Your task to perform on an android device: Search for Italian restaurants on Maps Image 0: 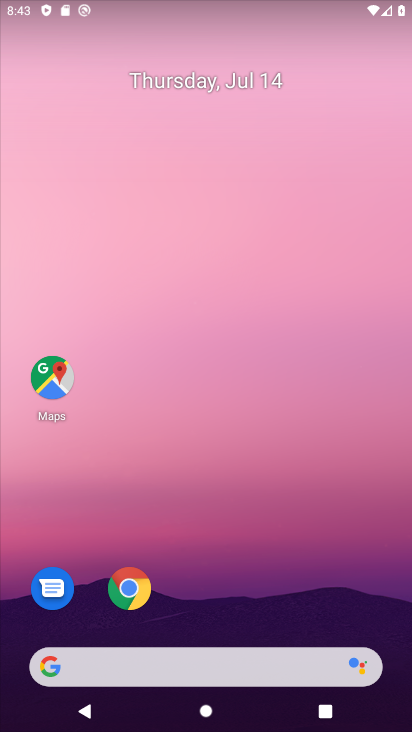
Step 0: drag from (233, 602) to (254, 176)
Your task to perform on an android device: Search for Italian restaurants on Maps Image 1: 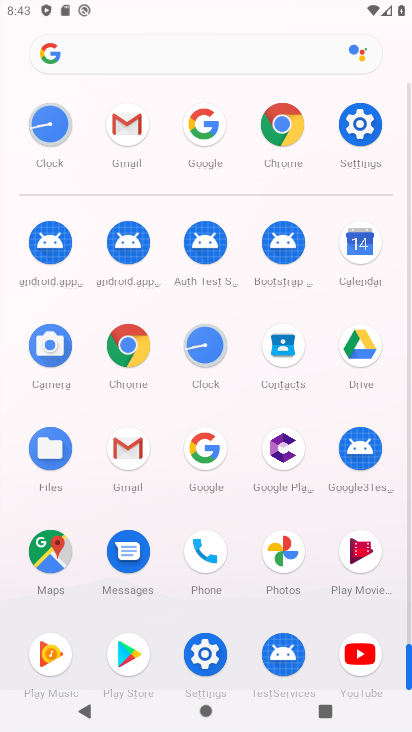
Step 1: click (51, 551)
Your task to perform on an android device: Search for Italian restaurants on Maps Image 2: 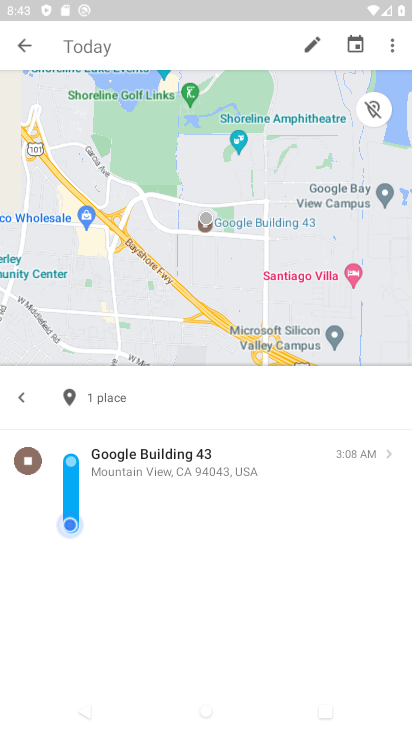
Step 2: press back button
Your task to perform on an android device: Search for Italian restaurants on Maps Image 3: 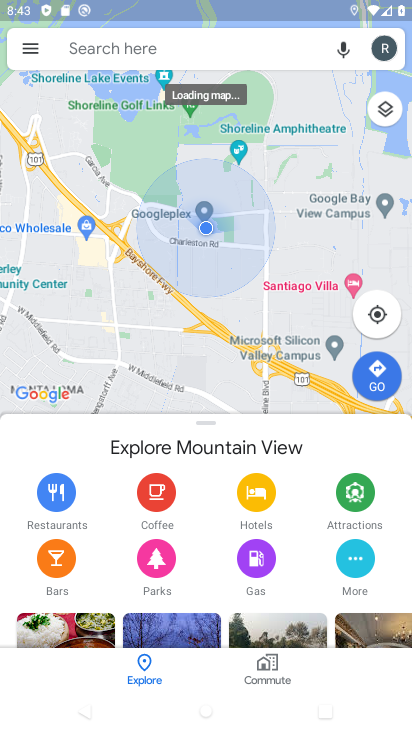
Step 3: click (156, 46)
Your task to perform on an android device: Search for Italian restaurants on Maps Image 4: 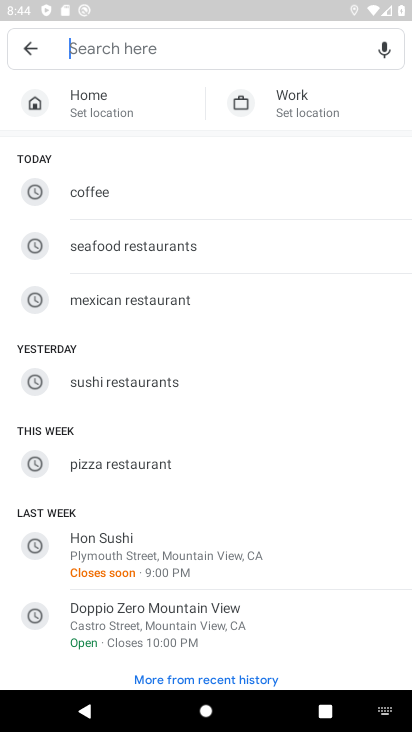
Step 4: type "italian restaurent"
Your task to perform on an android device: Search for Italian restaurants on Maps Image 5: 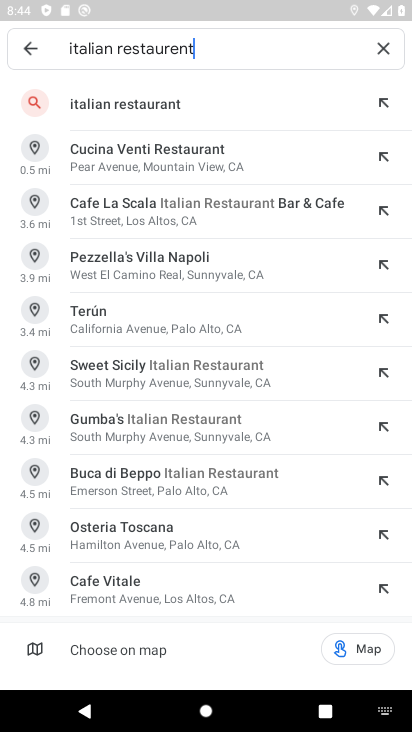
Step 5: click (132, 98)
Your task to perform on an android device: Search for Italian restaurants on Maps Image 6: 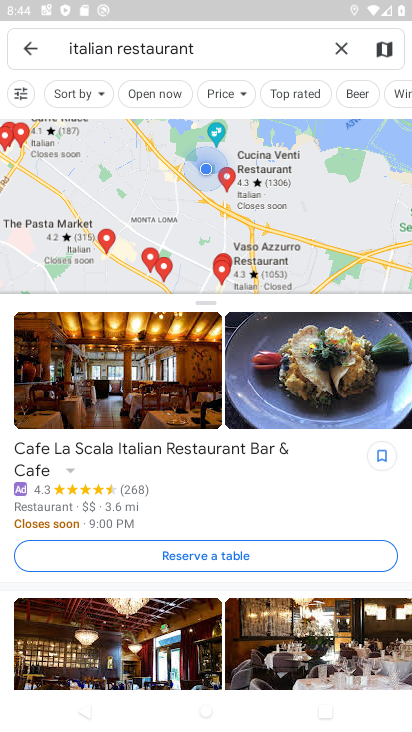
Step 6: task complete